Your task to perform on an android device: find snoozed emails in the gmail app Image 0: 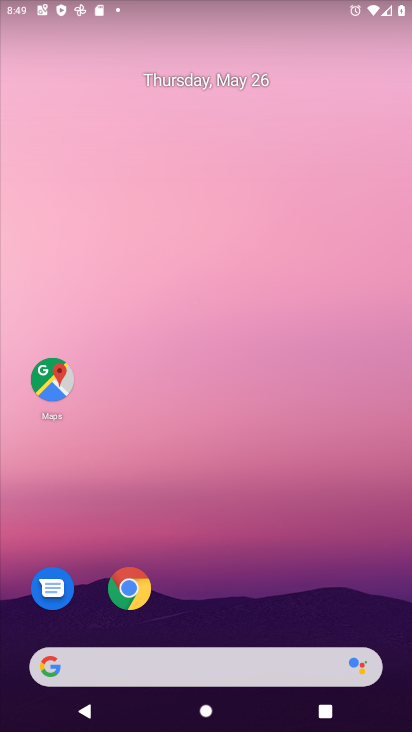
Step 0: drag from (371, 607) to (321, 7)
Your task to perform on an android device: find snoozed emails in the gmail app Image 1: 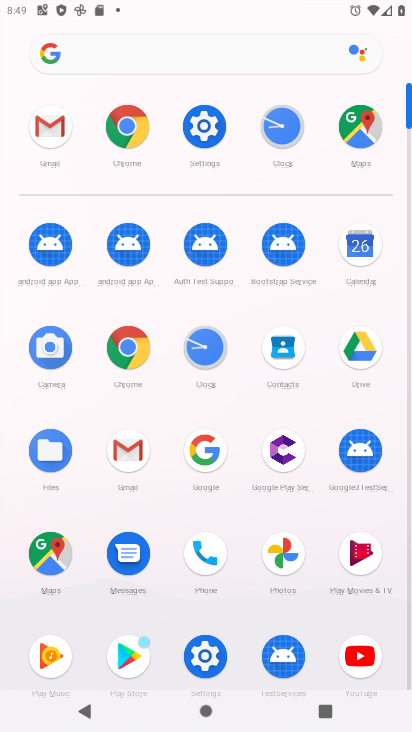
Step 1: click (127, 453)
Your task to perform on an android device: find snoozed emails in the gmail app Image 2: 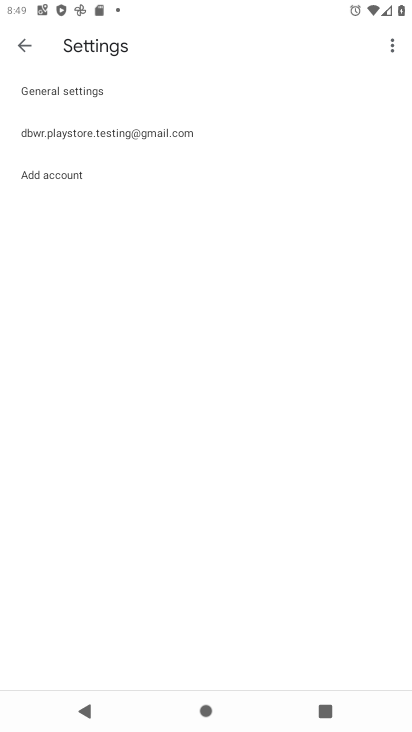
Step 2: press back button
Your task to perform on an android device: find snoozed emails in the gmail app Image 3: 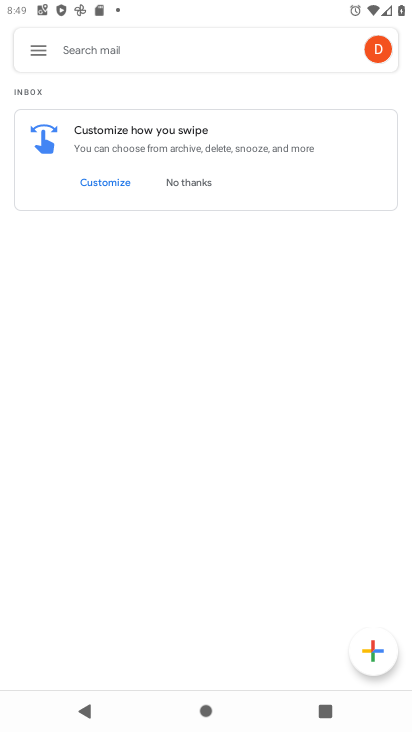
Step 3: click (40, 46)
Your task to perform on an android device: find snoozed emails in the gmail app Image 4: 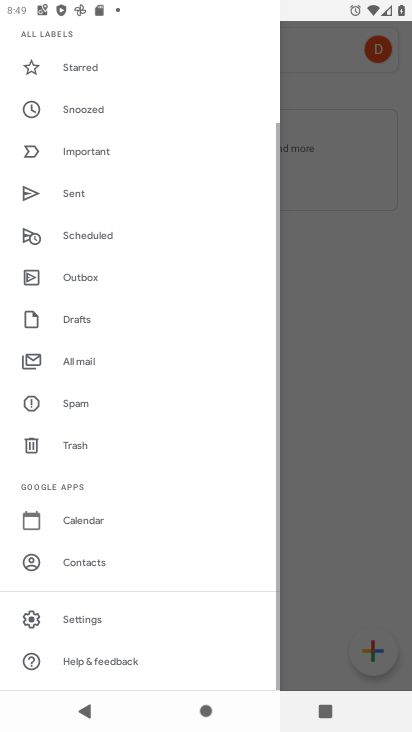
Step 4: click (96, 103)
Your task to perform on an android device: find snoozed emails in the gmail app Image 5: 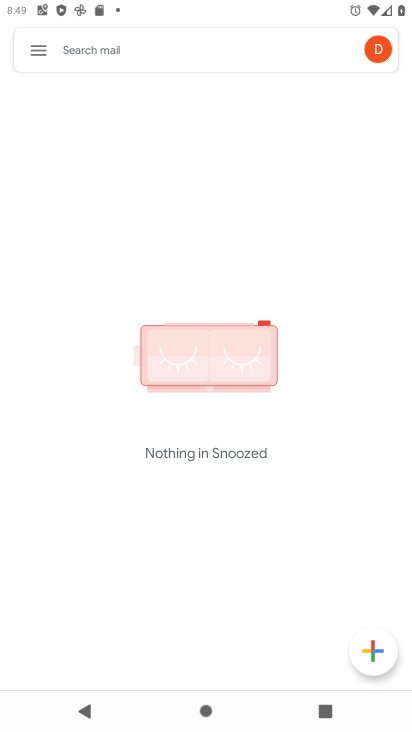
Step 5: task complete